Your task to perform on an android device: delete the emails in spam in the gmail app Image 0: 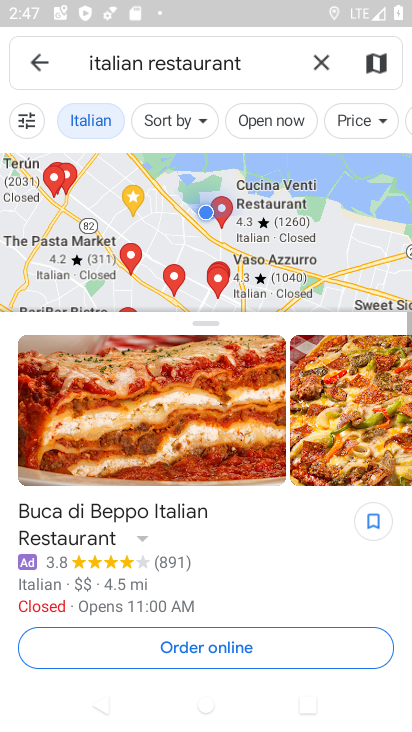
Step 0: press home button
Your task to perform on an android device: delete the emails in spam in the gmail app Image 1: 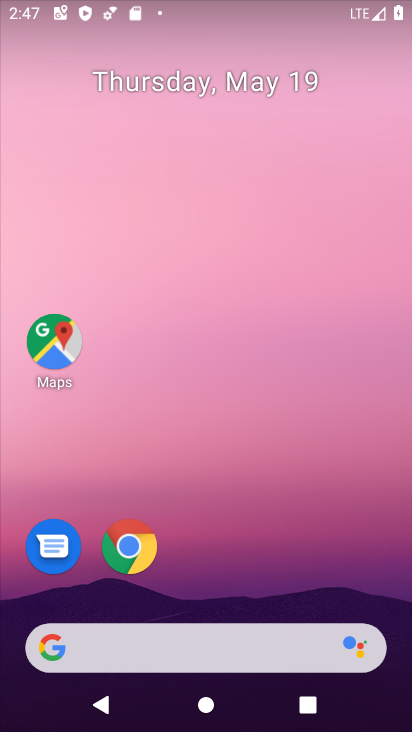
Step 1: drag from (160, 638) to (302, 224)
Your task to perform on an android device: delete the emails in spam in the gmail app Image 2: 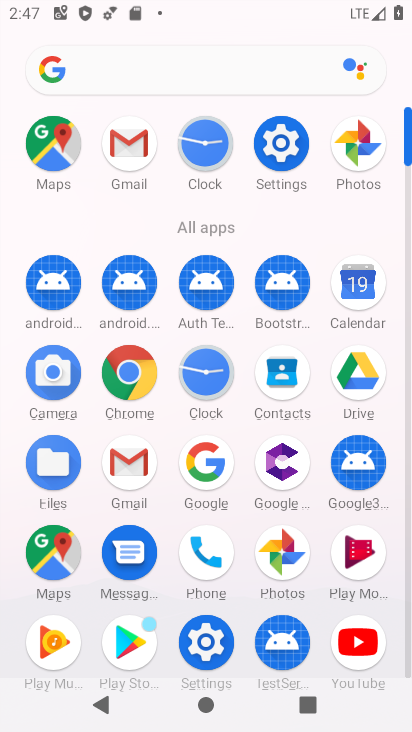
Step 2: click (132, 158)
Your task to perform on an android device: delete the emails in spam in the gmail app Image 3: 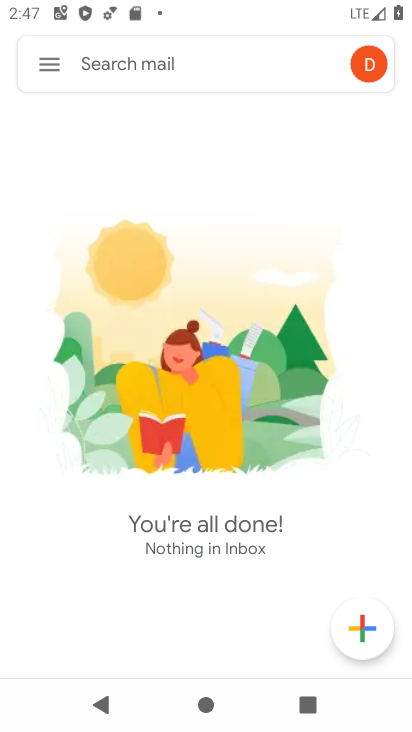
Step 3: click (52, 59)
Your task to perform on an android device: delete the emails in spam in the gmail app Image 4: 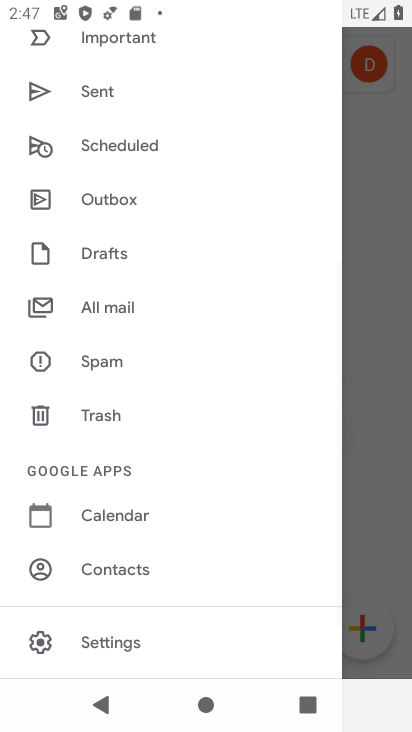
Step 4: click (91, 364)
Your task to perform on an android device: delete the emails in spam in the gmail app Image 5: 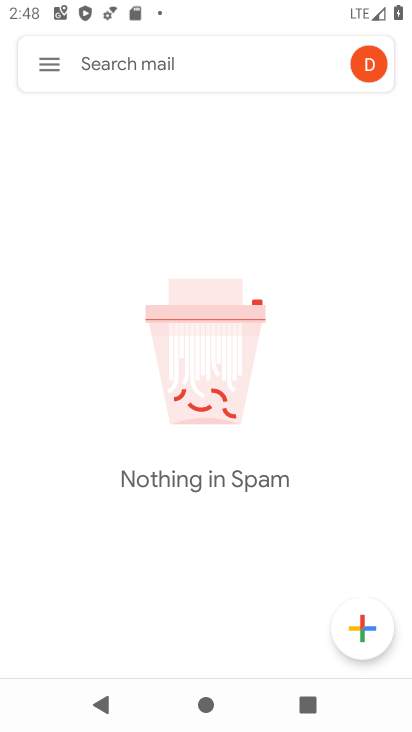
Step 5: task complete